Your task to perform on an android device: Check the weather Image 0: 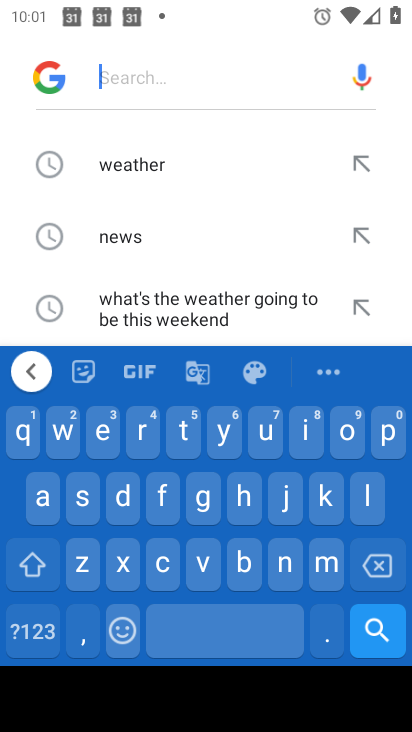
Step 0: click (150, 165)
Your task to perform on an android device: Check the weather Image 1: 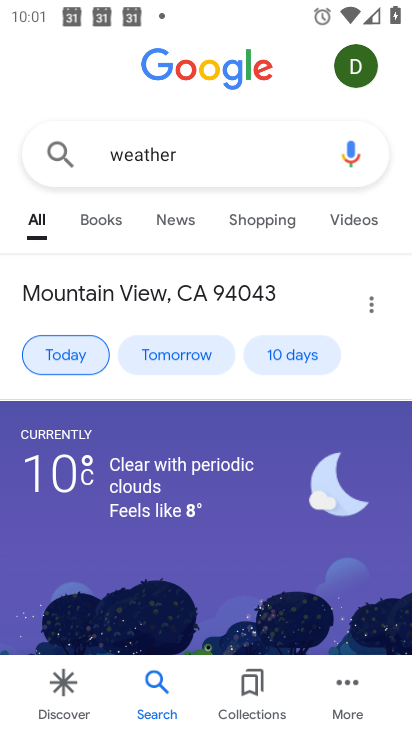
Step 1: task complete